Your task to perform on an android device: open app "Yahoo Mail" (install if not already installed), go to login, and select forgot password Image 0: 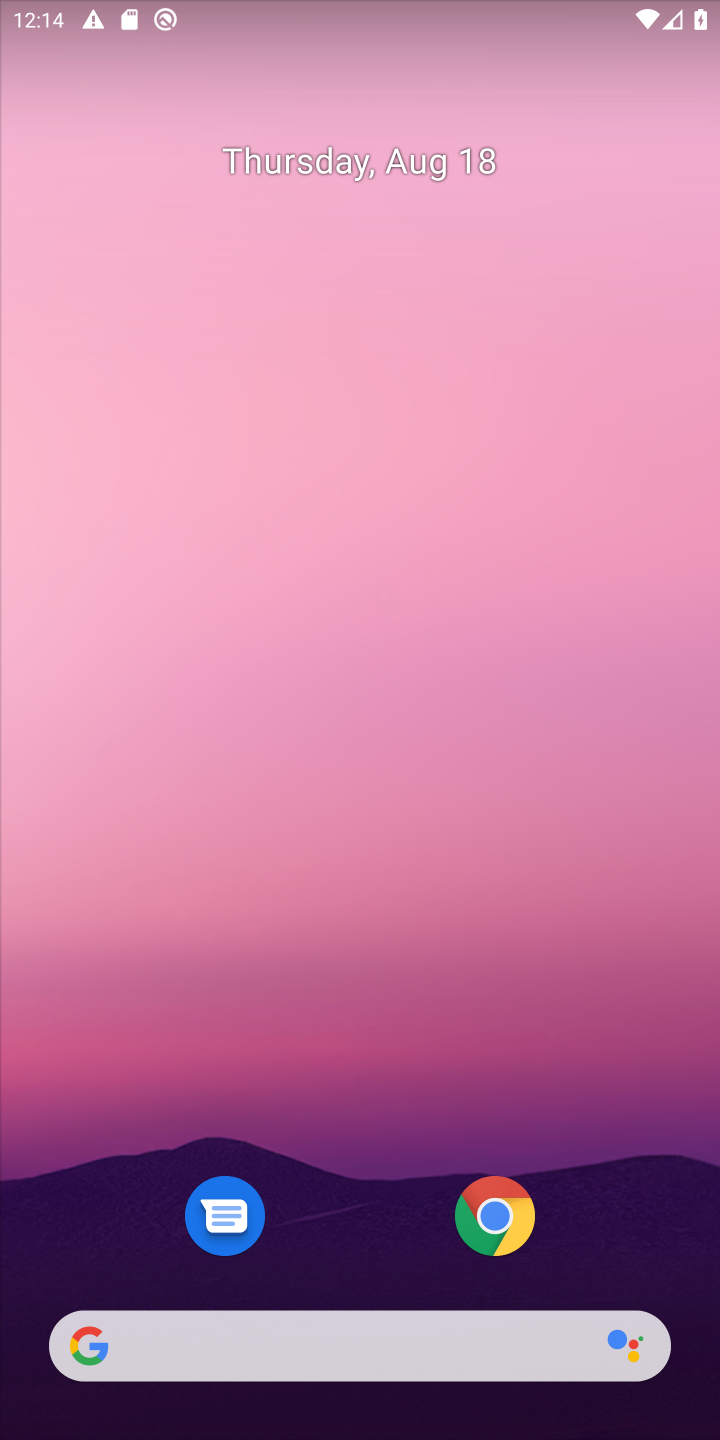
Step 0: drag from (665, 1150) to (521, 557)
Your task to perform on an android device: open app "Yahoo Mail" (install if not already installed), go to login, and select forgot password Image 1: 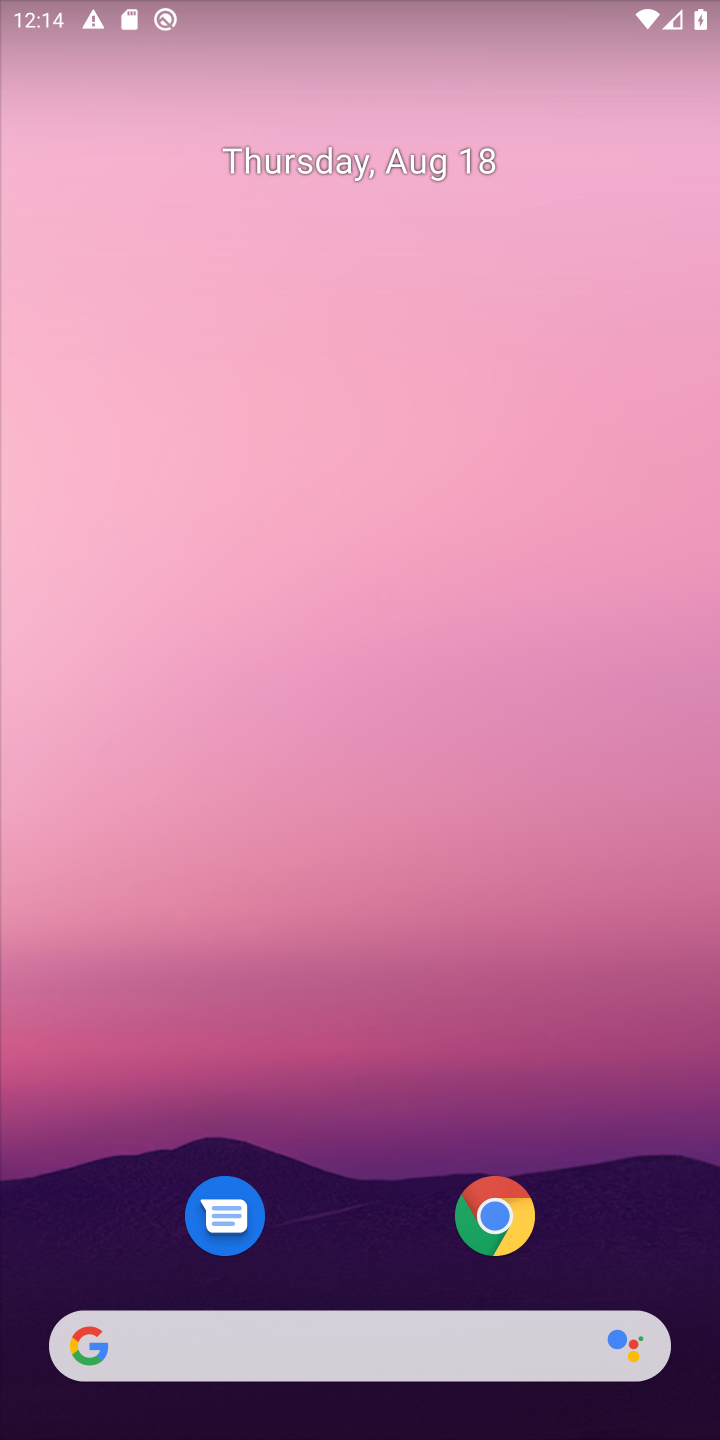
Step 1: drag from (657, 1231) to (525, 262)
Your task to perform on an android device: open app "Yahoo Mail" (install if not already installed), go to login, and select forgot password Image 2: 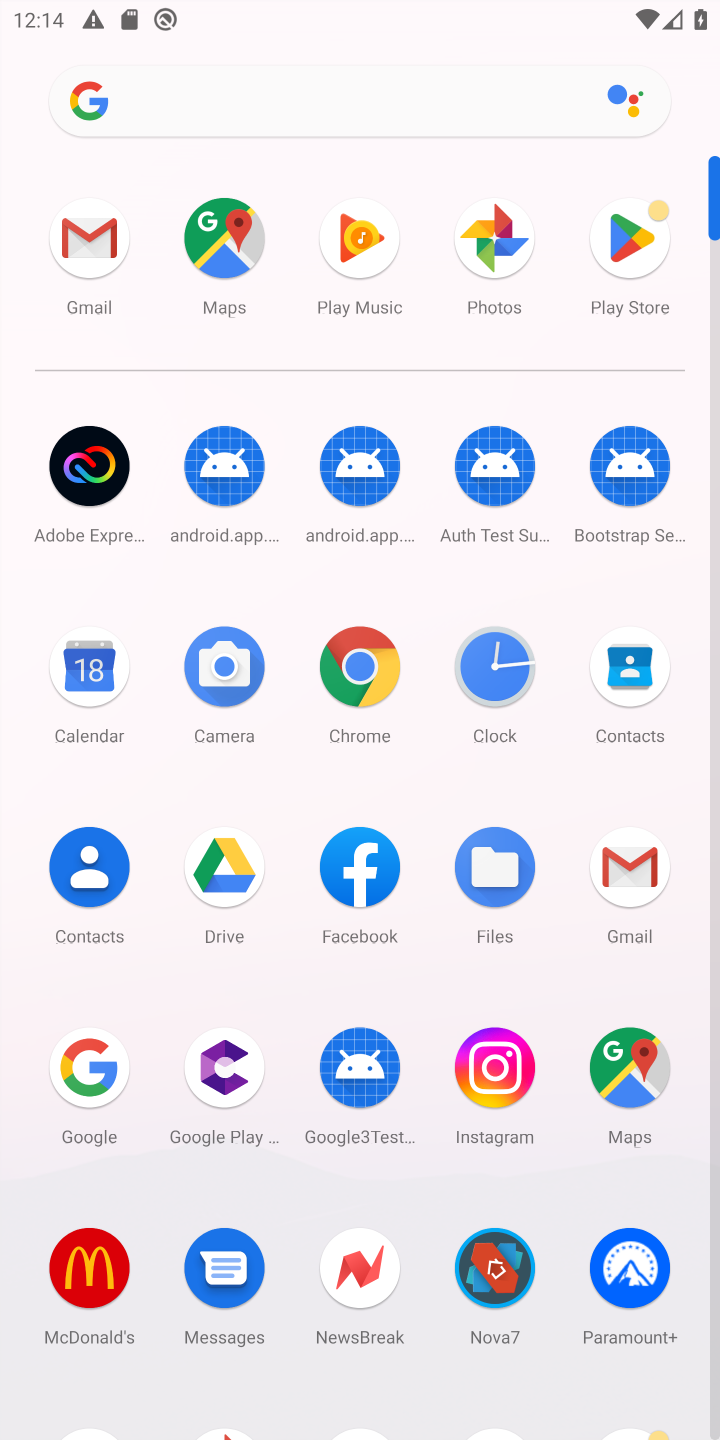
Step 2: drag from (433, 1200) to (363, 918)
Your task to perform on an android device: open app "Yahoo Mail" (install if not already installed), go to login, and select forgot password Image 3: 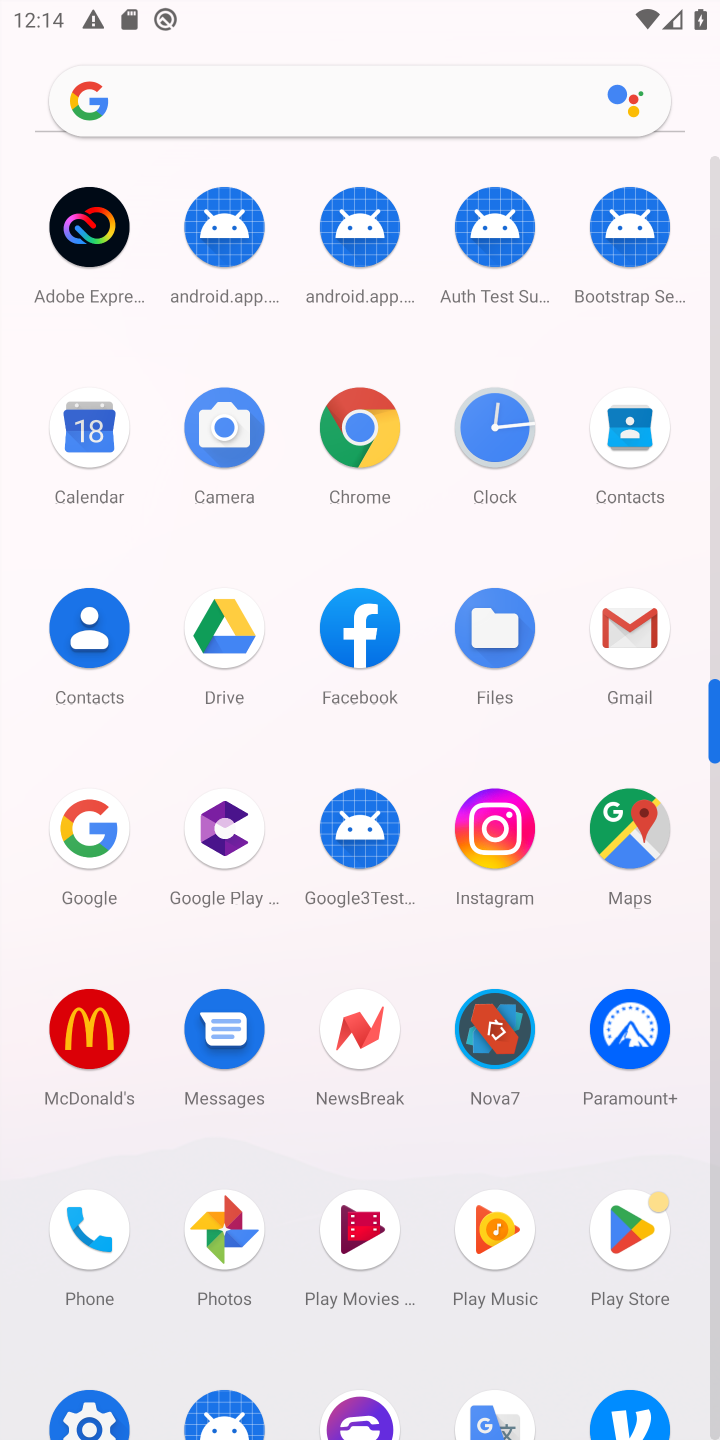
Step 3: click (610, 1230)
Your task to perform on an android device: open app "Yahoo Mail" (install if not already installed), go to login, and select forgot password Image 4: 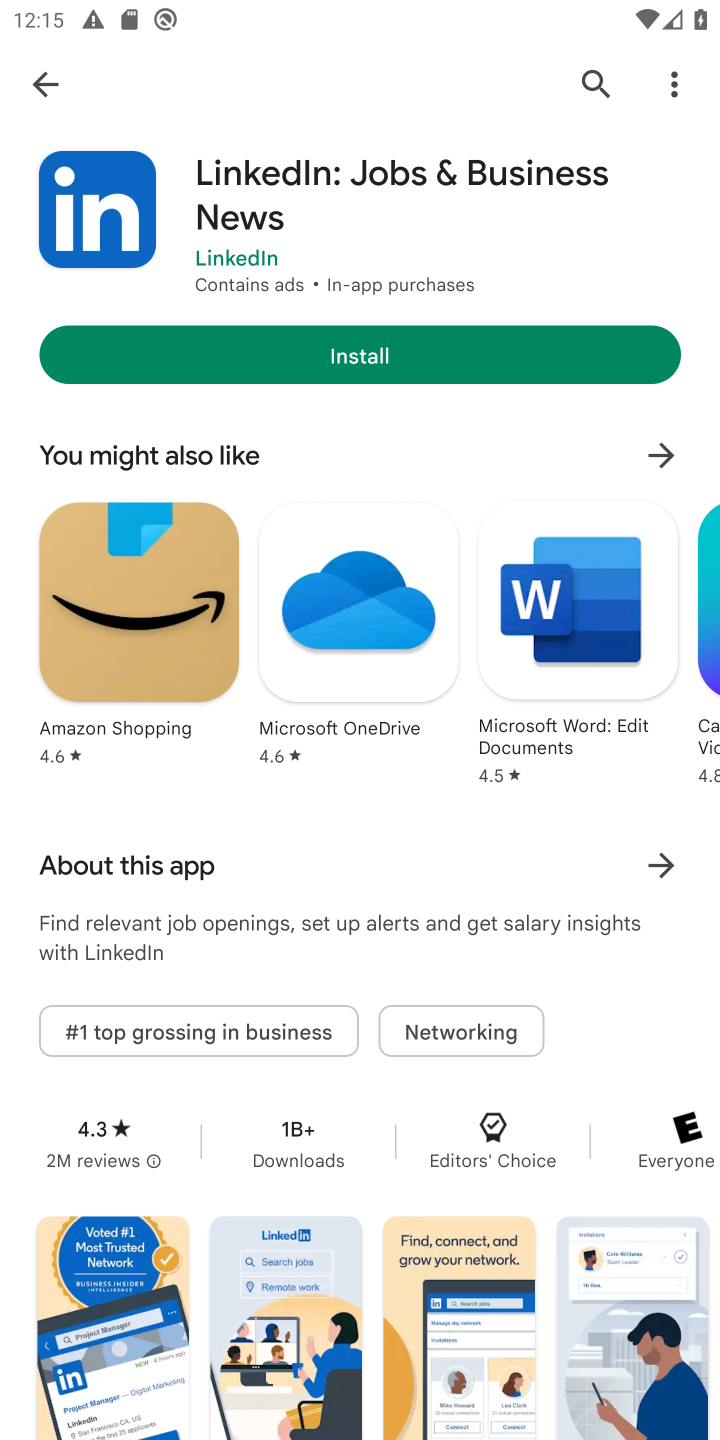
Step 4: click (598, 61)
Your task to perform on an android device: open app "Yahoo Mail" (install if not already installed), go to login, and select forgot password Image 5: 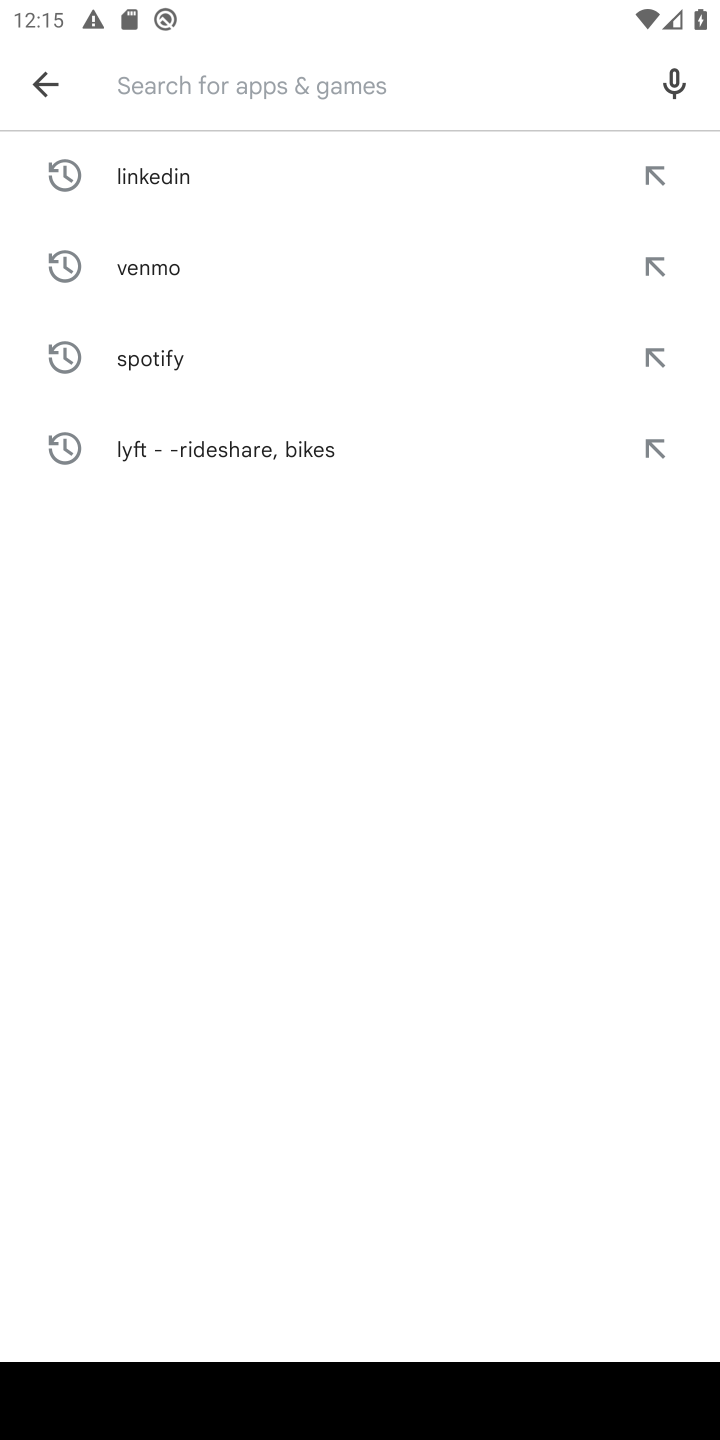
Step 5: type "yahoo mail"
Your task to perform on an android device: open app "Yahoo Mail" (install if not already installed), go to login, and select forgot password Image 6: 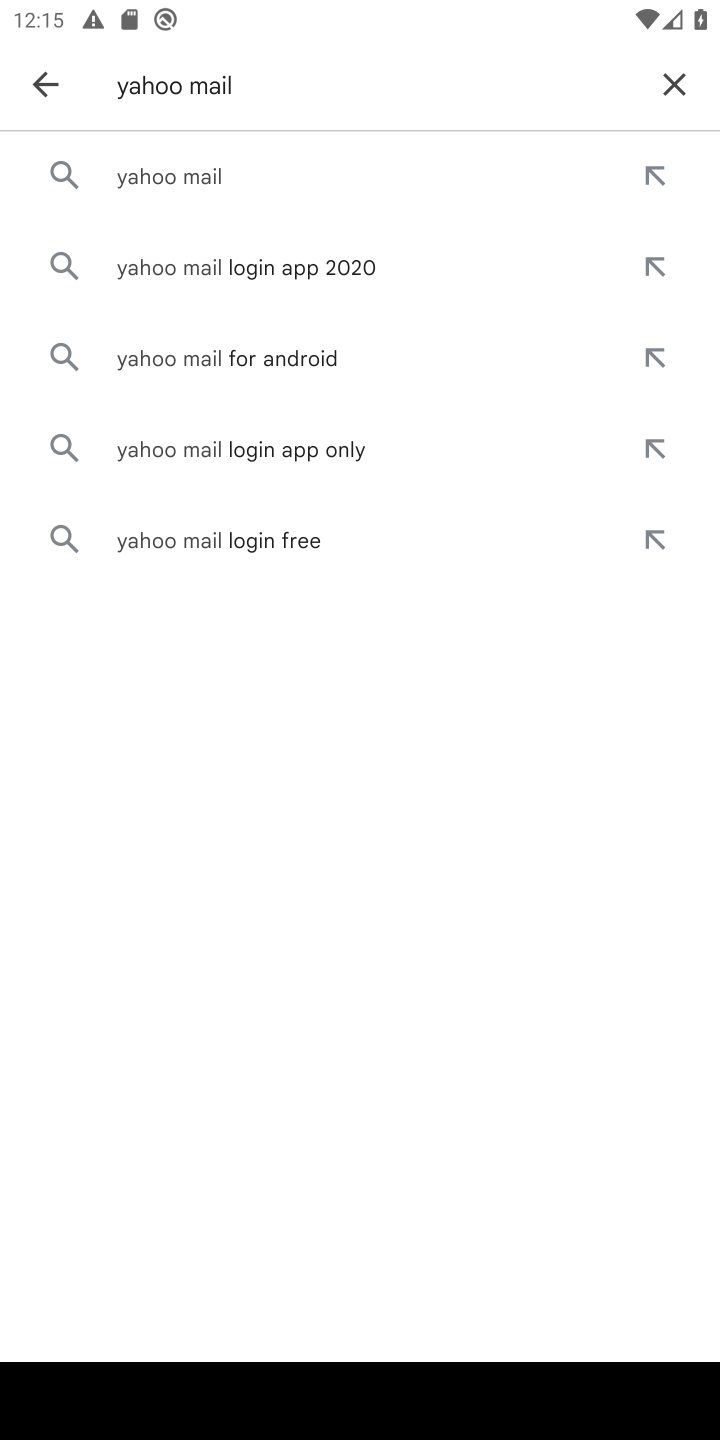
Step 6: click (263, 163)
Your task to perform on an android device: open app "Yahoo Mail" (install if not already installed), go to login, and select forgot password Image 7: 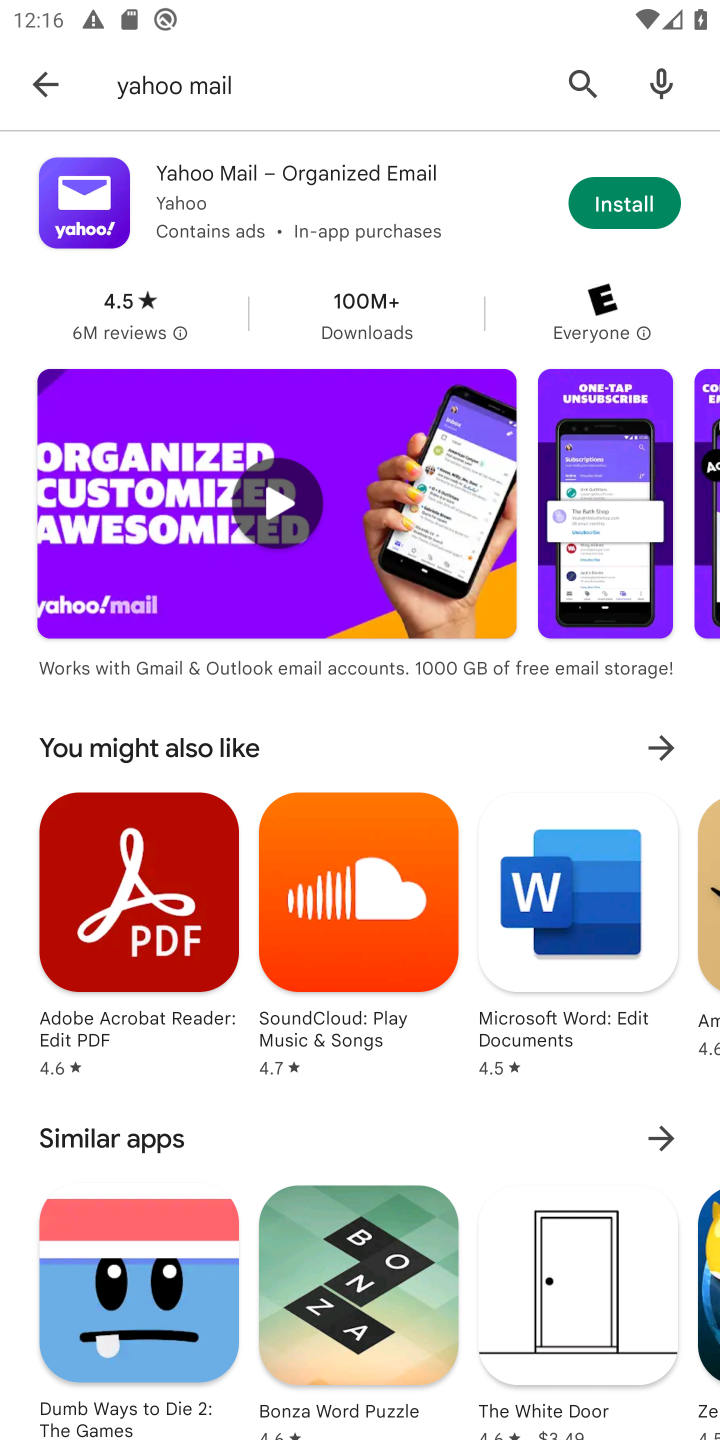
Step 7: click (654, 211)
Your task to perform on an android device: open app "Yahoo Mail" (install if not already installed), go to login, and select forgot password Image 8: 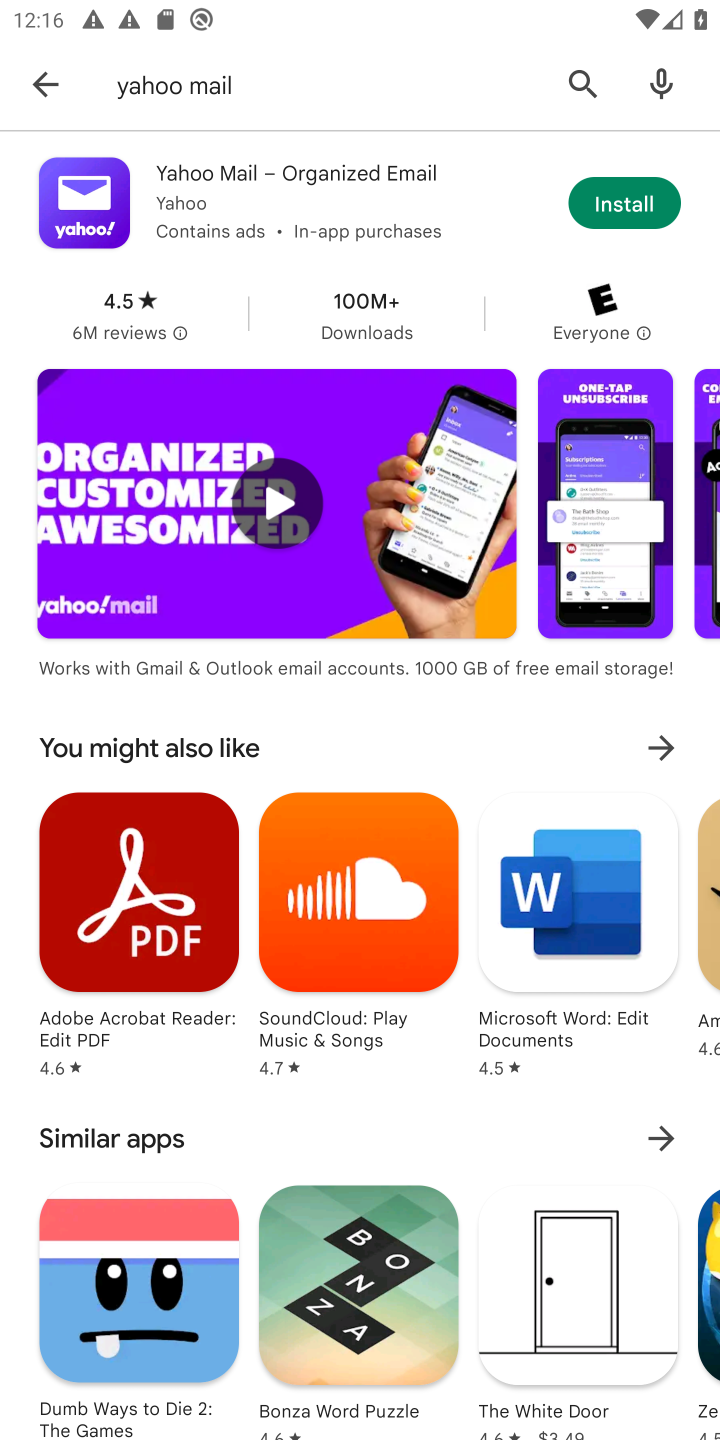
Step 8: task complete